Your task to perform on an android device: Go to wifi settings Image 0: 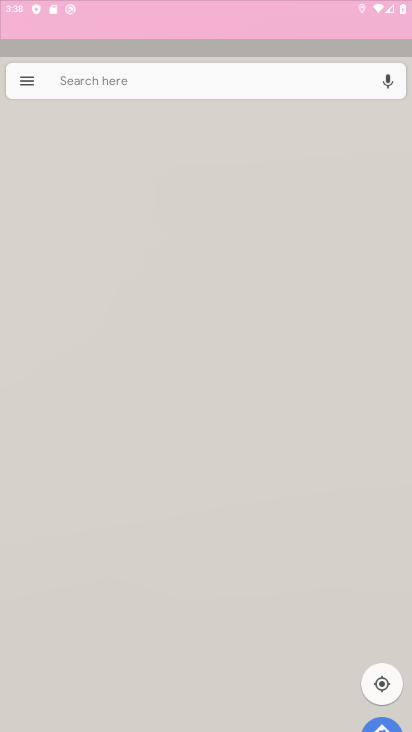
Step 0: click (249, 83)
Your task to perform on an android device: Go to wifi settings Image 1: 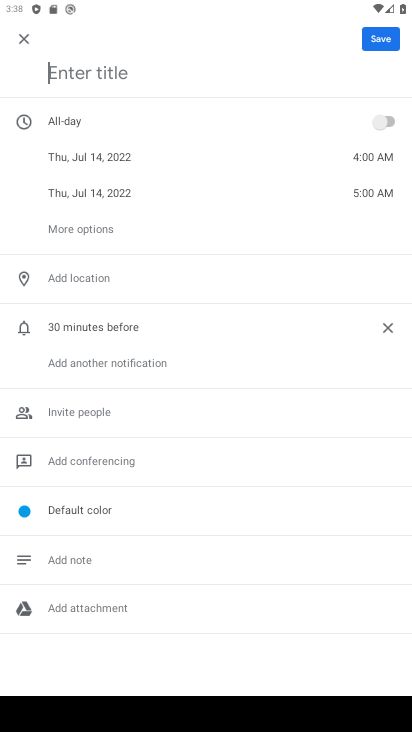
Step 1: press home button
Your task to perform on an android device: Go to wifi settings Image 2: 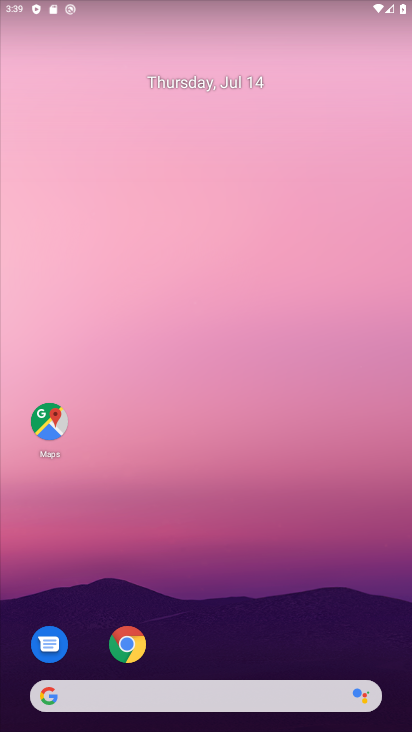
Step 2: drag from (75, 4) to (87, 433)
Your task to perform on an android device: Go to wifi settings Image 3: 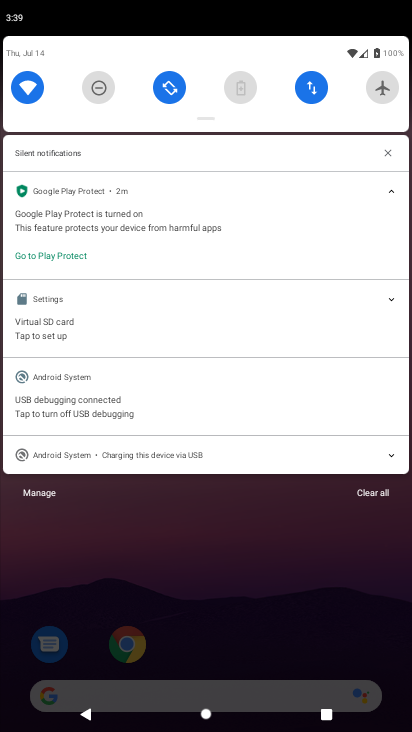
Step 3: click (18, 84)
Your task to perform on an android device: Go to wifi settings Image 4: 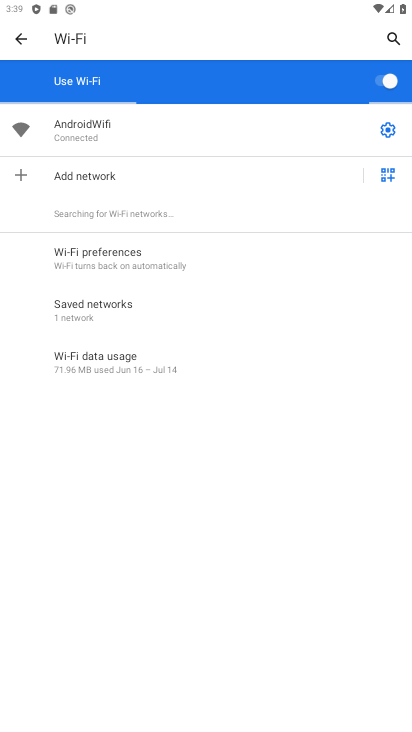
Step 4: task complete